Your task to perform on an android device: Play the last video I watched on Youtube Image 0: 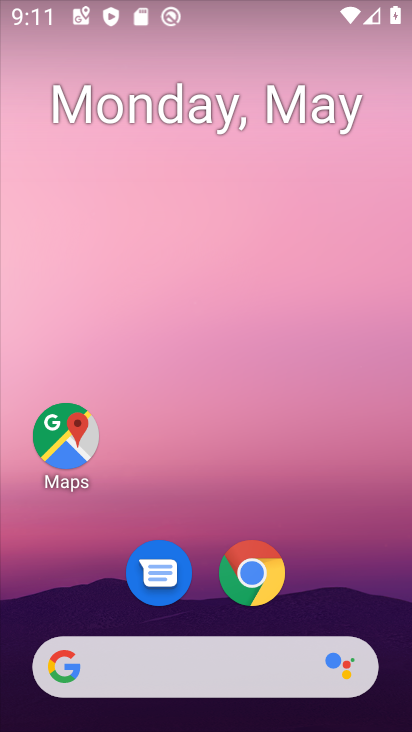
Step 0: drag from (351, 573) to (280, 131)
Your task to perform on an android device: Play the last video I watched on Youtube Image 1: 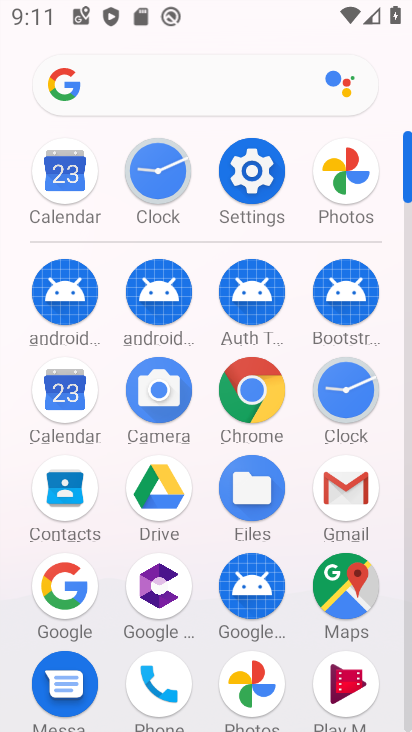
Step 1: click (407, 667)
Your task to perform on an android device: Play the last video I watched on Youtube Image 2: 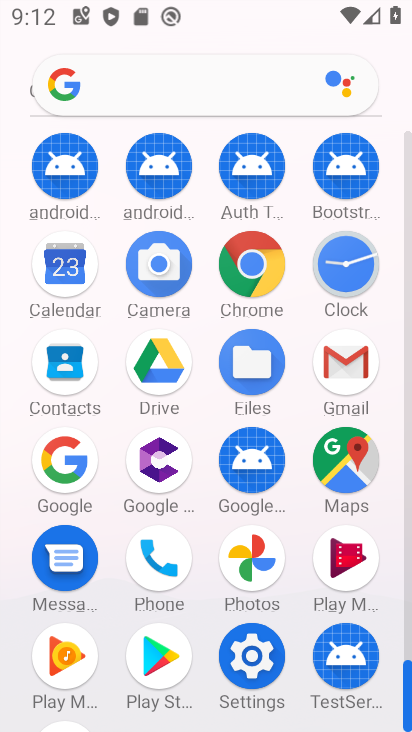
Step 2: drag from (407, 693) to (396, 624)
Your task to perform on an android device: Play the last video I watched on Youtube Image 3: 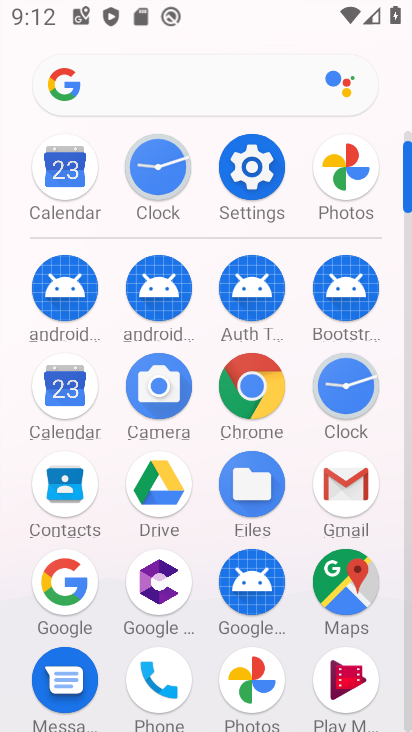
Step 3: click (79, 708)
Your task to perform on an android device: Play the last video I watched on Youtube Image 4: 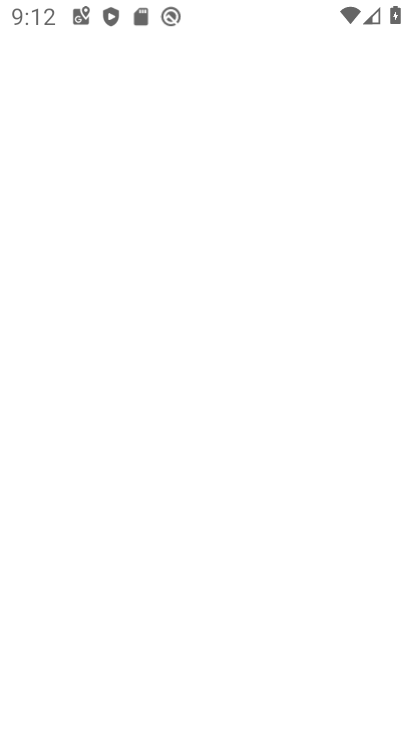
Step 4: task complete